Your task to perform on an android device: change alarm snooze length Image 0: 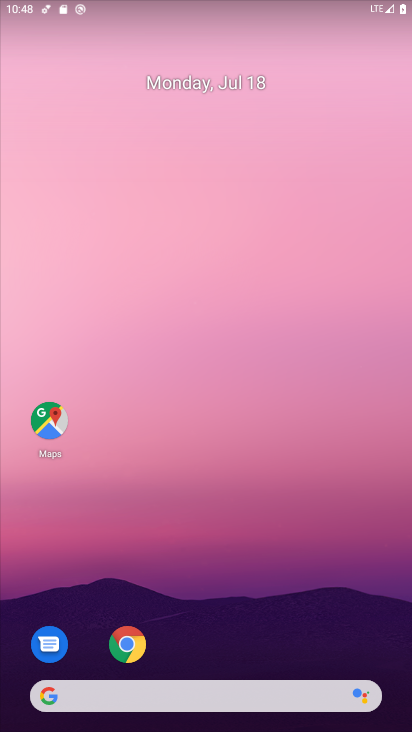
Step 0: drag from (330, 605) to (397, 79)
Your task to perform on an android device: change alarm snooze length Image 1: 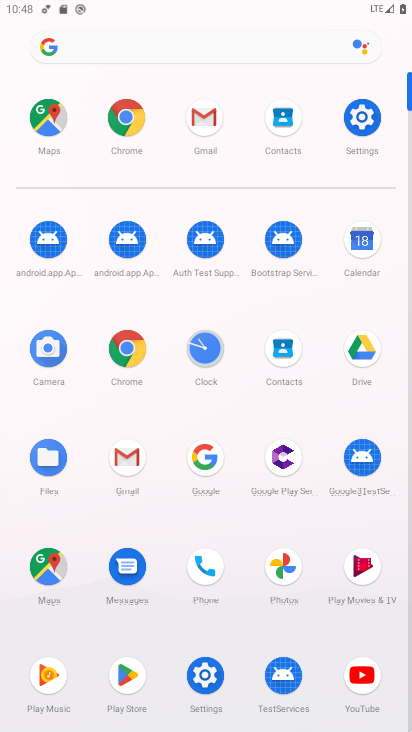
Step 1: click (208, 355)
Your task to perform on an android device: change alarm snooze length Image 2: 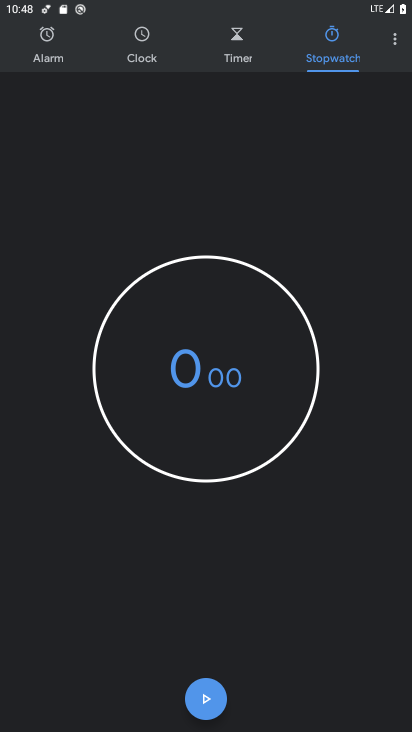
Step 2: click (394, 47)
Your task to perform on an android device: change alarm snooze length Image 3: 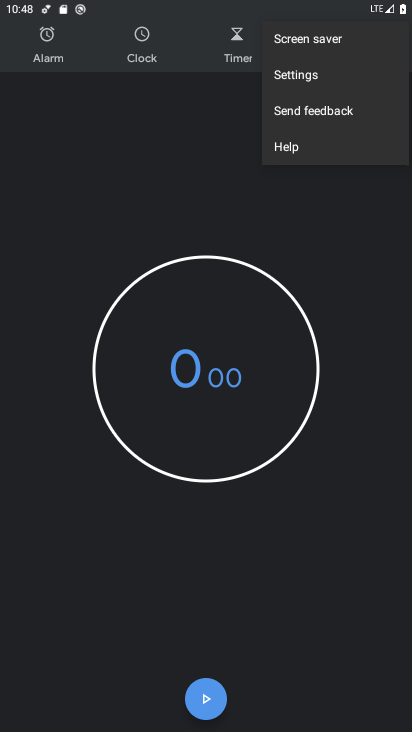
Step 3: click (337, 89)
Your task to perform on an android device: change alarm snooze length Image 4: 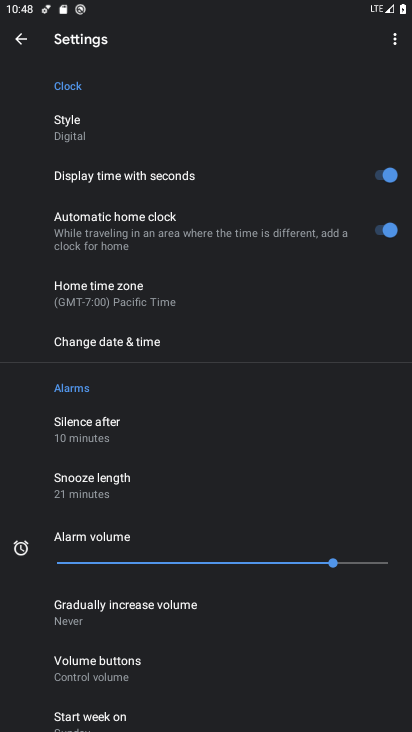
Step 4: drag from (313, 370) to (316, 299)
Your task to perform on an android device: change alarm snooze length Image 5: 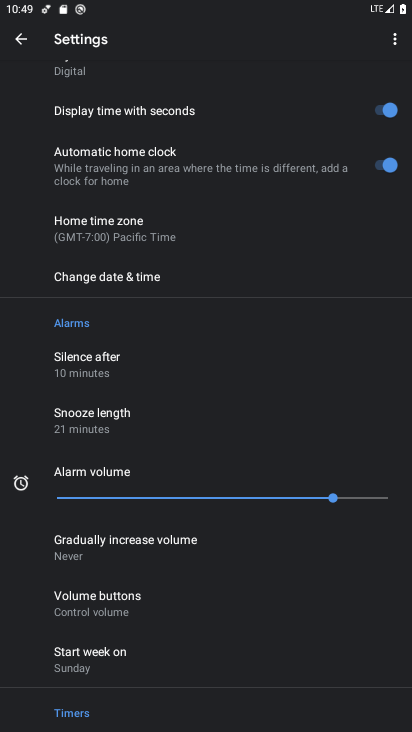
Step 5: drag from (316, 402) to (336, 331)
Your task to perform on an android device: change alarm snooze length Image 6: 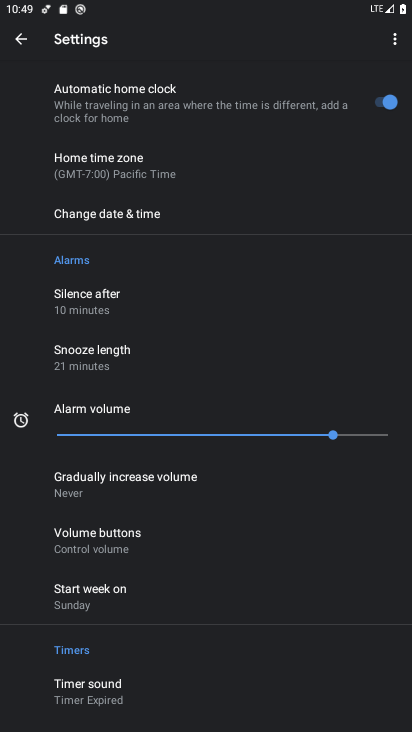
Step 6: drag from (322, 474) to (333, 321)
Your task to perform on an android device: change alarm snooze length Image 7: 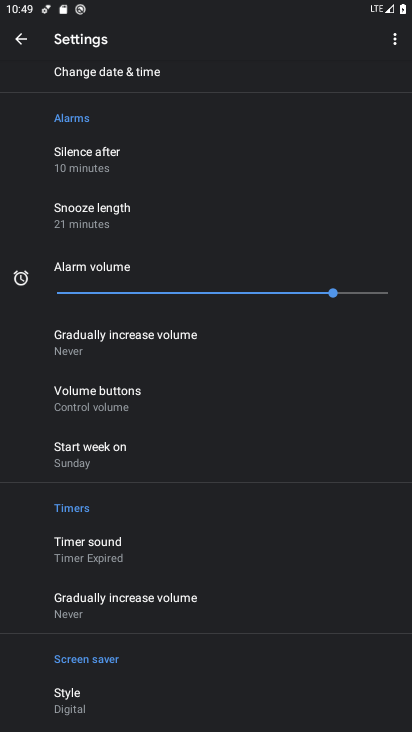
Step 7: drag from (327, 492) to (322, 340)
Your task to perform on an android device: change alarm snooze length Image 8: 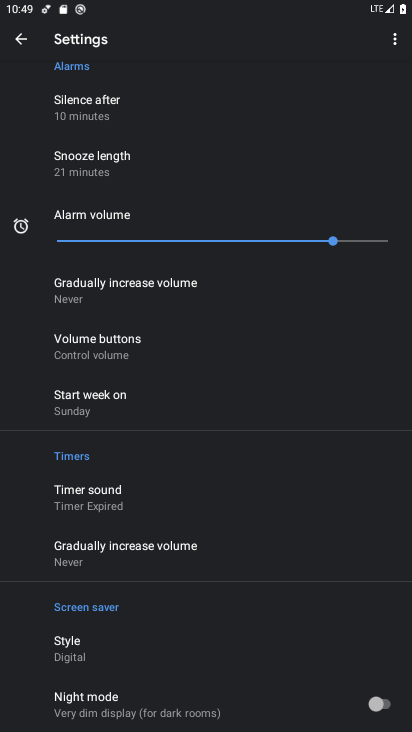
Step 8: drag from (327, 320) to (310, 406)
Your task to perform on an android device: change alarm snooze length Image 9: 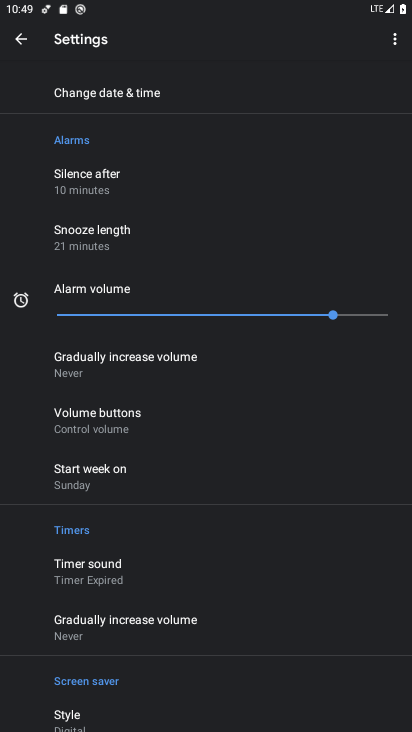
Step 9: drag from (323, 261) to (298, 358)
Your task to perform on an android device: change alarm snooze length Image 10: 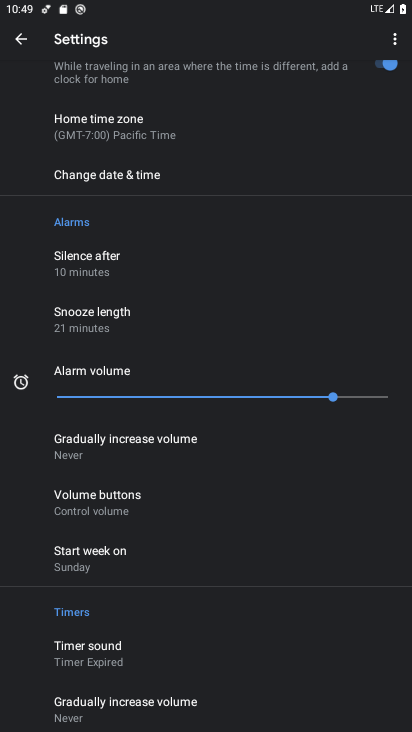
Step 10: drag from (311, 231) to (289, 340)
Your task to perform on an android device: change alarm snooze length Image 11: 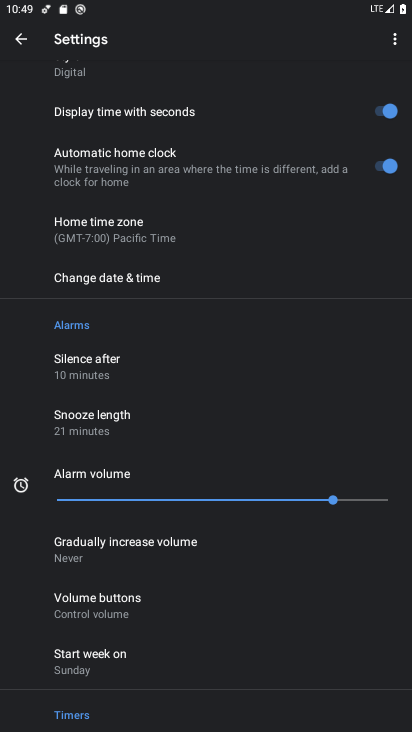
Step 11: click (198, 428)
Your task to perform on an android device: change alarm snooze length Image 12: 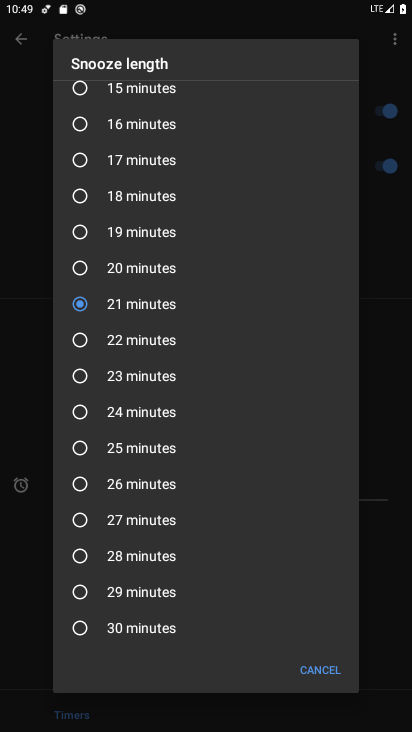
Step 12: click (169, 383)
Your task to perform on an android device: change alarm snooze length Image 13: 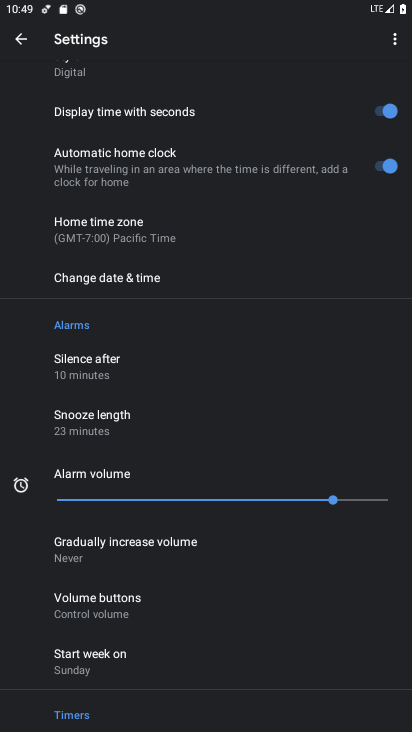
Step 13: task complete